Your task to perform on an android device: find snoozed emails in the gmail app Image 0: 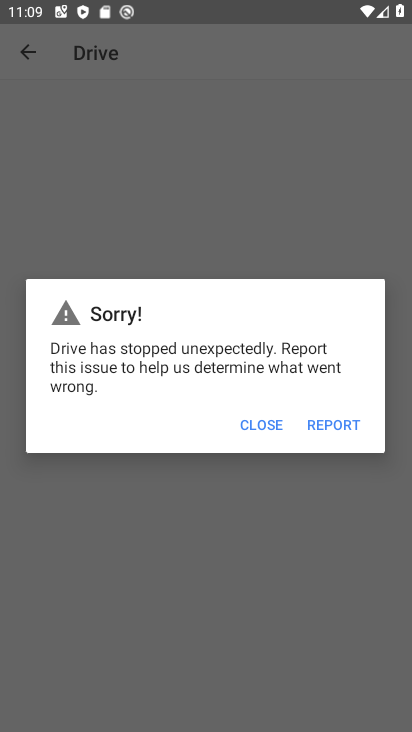
Step 0: press home button
Your task to perform on an android device: find snoozed emails in the gmail app Image 1: 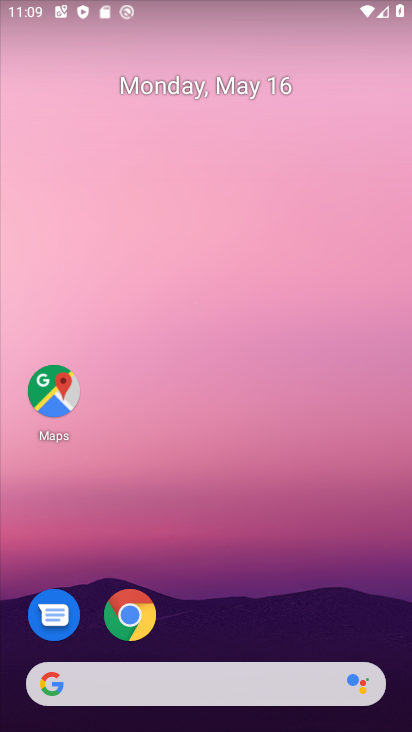
Step 1: drag from (200, 723) to (212, 203)
Your task to perform on an android device: find snoozed emails in the gmail app Image 2: 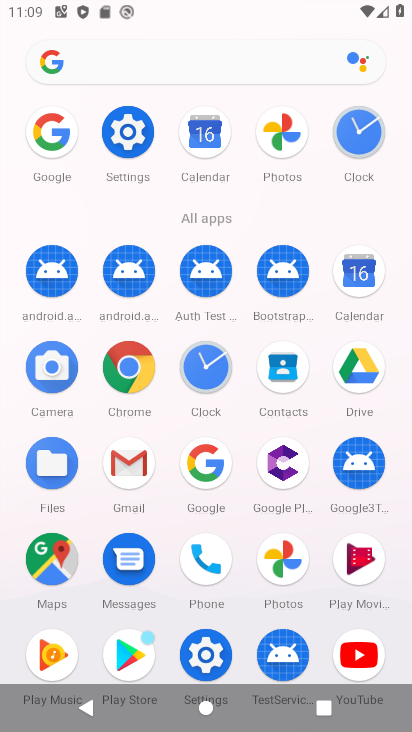
Step 2: click (132, 467)
Your task to perform on an android device: find snoozed emails in the gmail app Image 3: 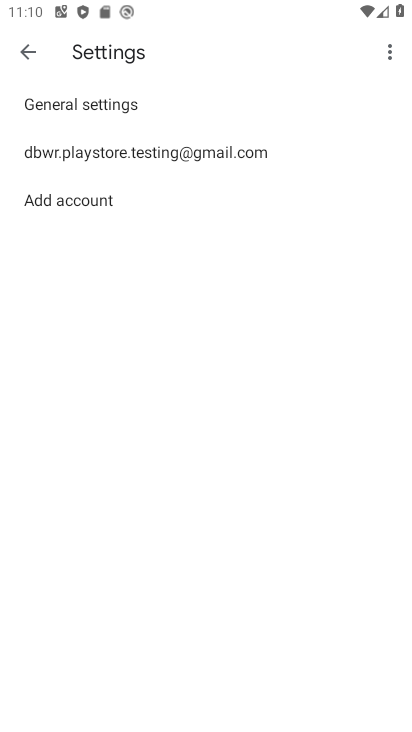
Step 3: click (31, 50)
Your task to perform on an android device: find snoozed emails in the gmail app Image 4: 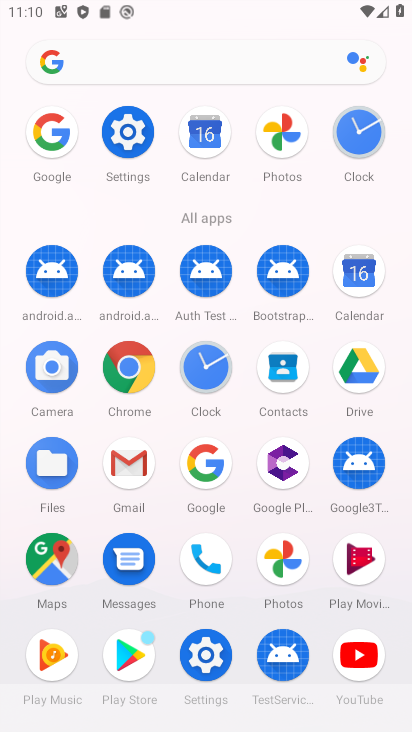
Step 4: click (136, 465)
Your task to perform on an android device: find snoozed emails in the gmail app Image 5: 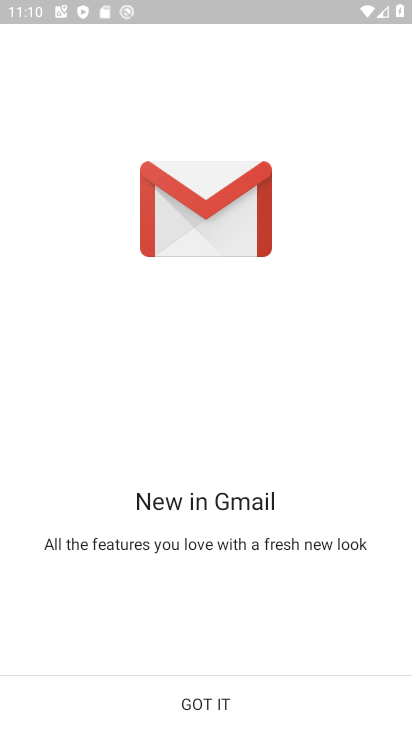
Step 5: click (201, 702)
Your task to perform on an android device: find snoozed emails in the gmail app Image 6: 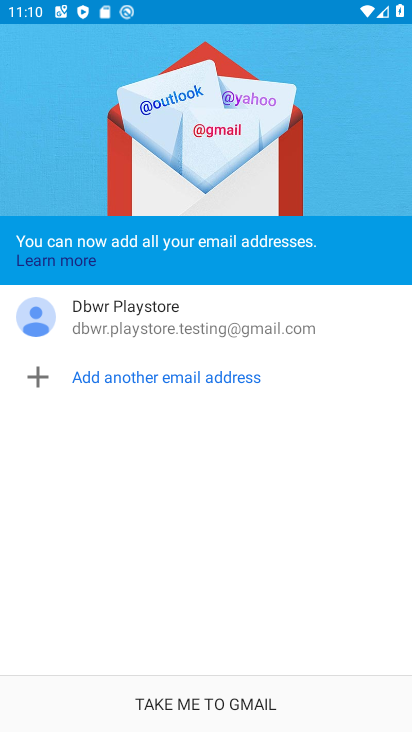
Step 6: click (164, 706)
Your task to perform on an android device: find snoozed emails in the gmail app Image 7: 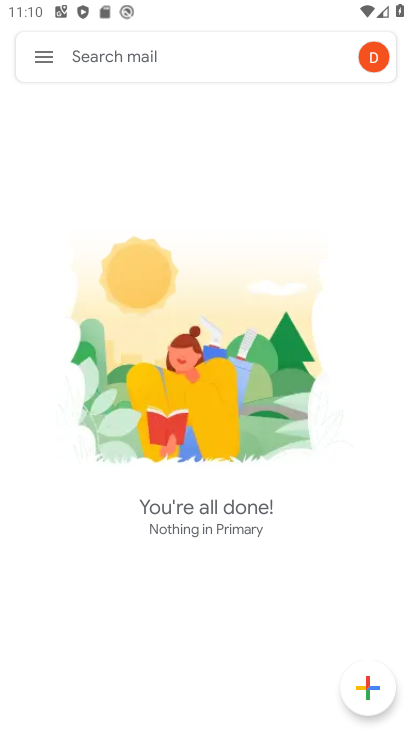
Step 7: click (47, 53)
Your task to perform on an android device: find snoozed emails in the gmail app Image 8: 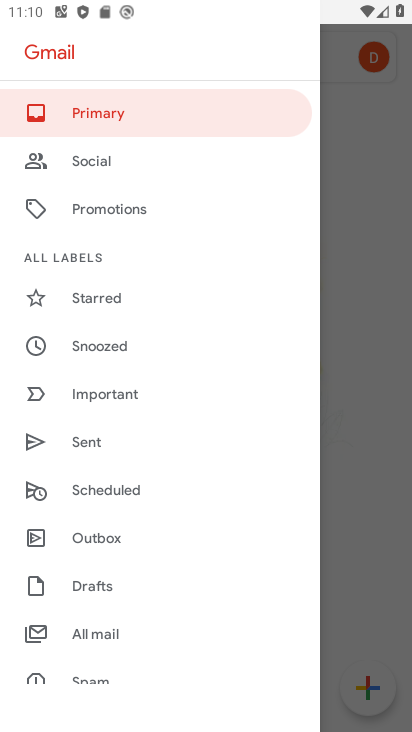
Step 8: click (102, 343)
Your task to perform on an android device: find snoozed emails in the gmail app Image 9: 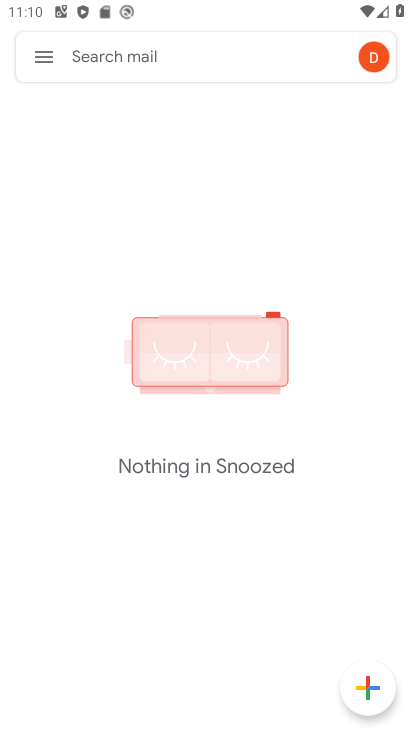
Step 9: task complete